Your task to perform on an android device: Toggle the flashlight Image 0: 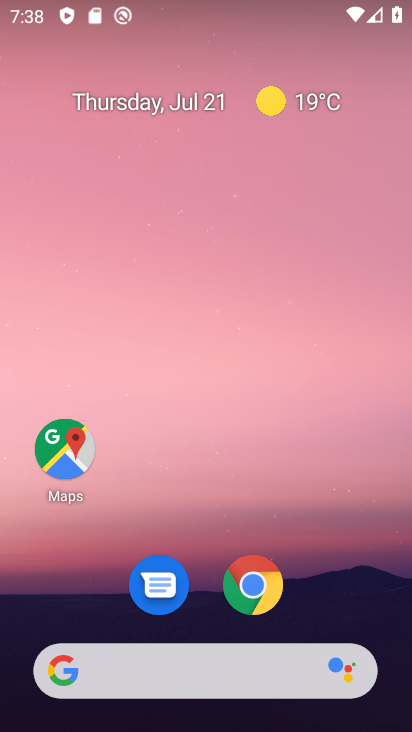
Step 0: drag from (328, 575) to (335, 26)
Your task to perform on an android device: Toggle the flashlight Image 1: 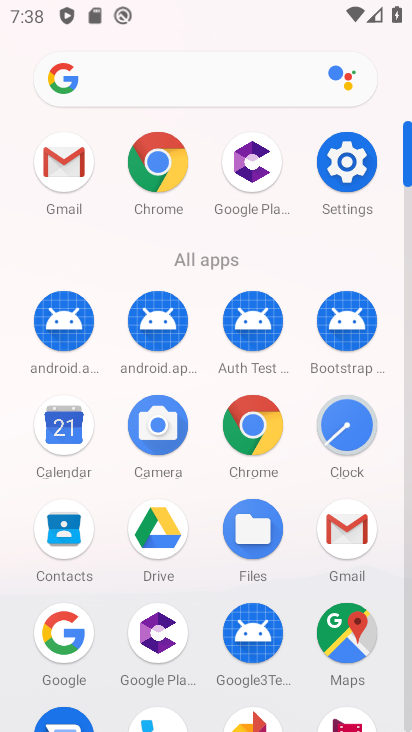
Step 1: click (355, 162)
Your task to perform on an android device: Toggle the flashlight Image 2: 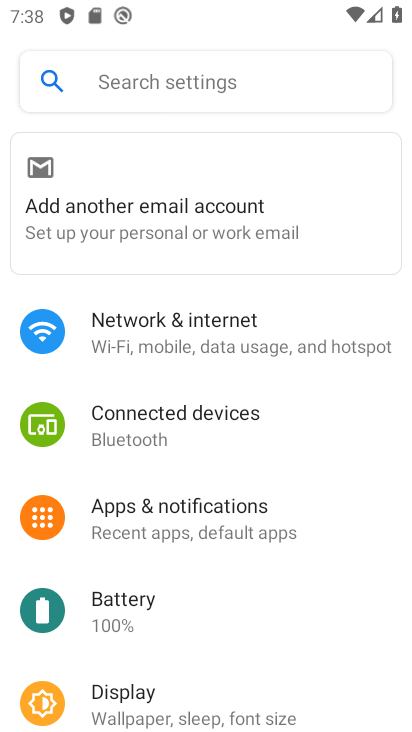
Step 2: click (270, 83)
Your task to perform on an android device: Toggle the flashlight Image 3: 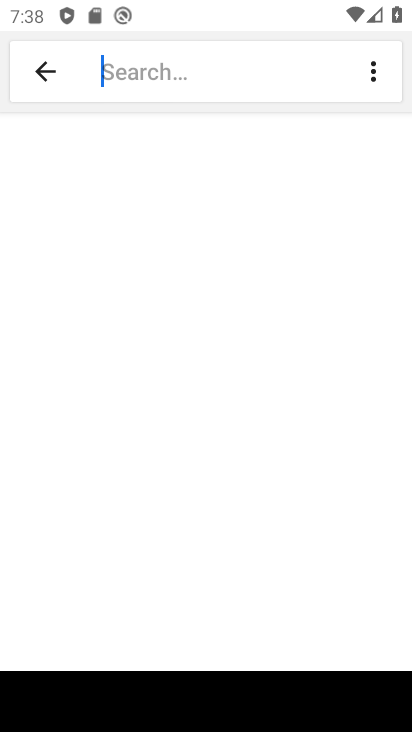
Step 3: type "Flashlight"
Your task to perform on an android device: Toggle the flashlight Image 4: 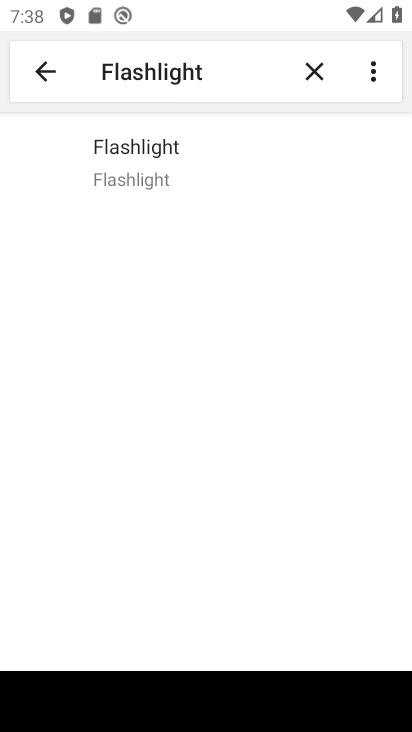
Step 4: click (154, 172)
Your task to perform on an android device: Toggle the flashlight Image 5: 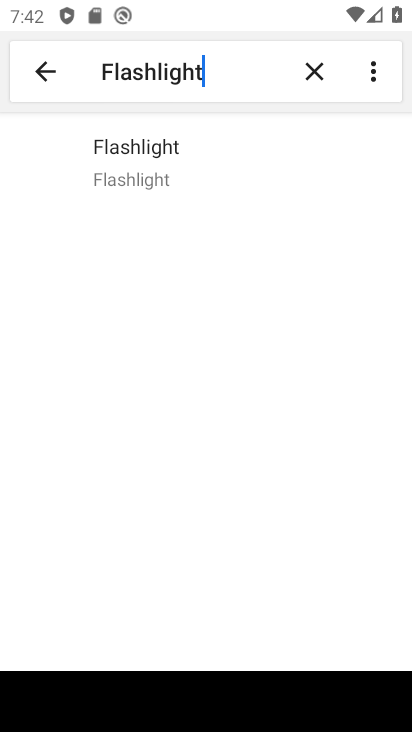
Step 5: task complete